Your task to perform on an android device: Do I have any events this weekend? Image 0: 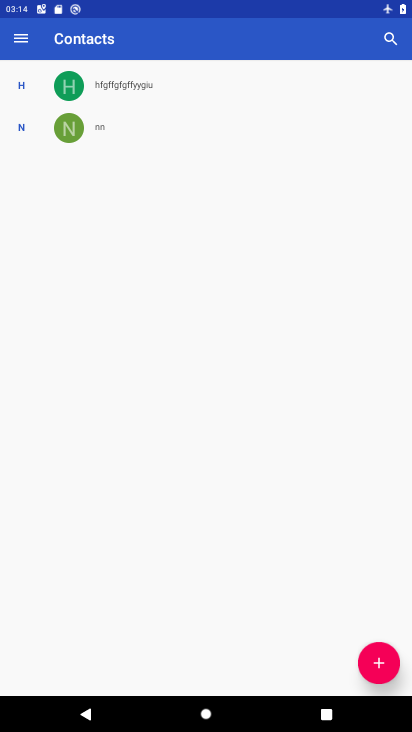
Step 0: press home button
Your task to perform on an android device: Do I have any events this weekend? Image 1: 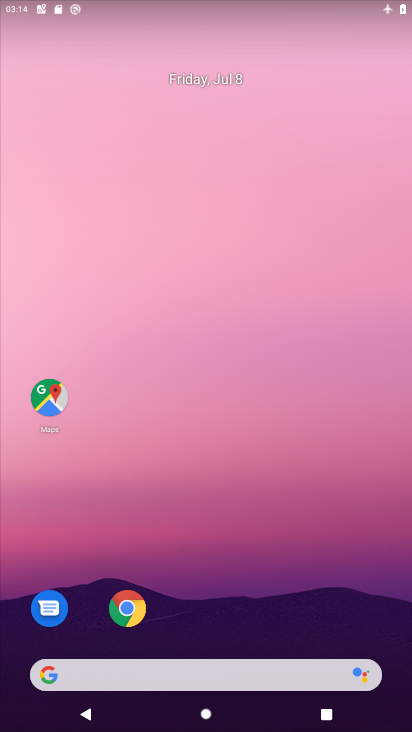
Step 1: drag from (242, 578) to (170, 118)
Your task to perform on an android device: Do I have any events this weekend? Image 2: 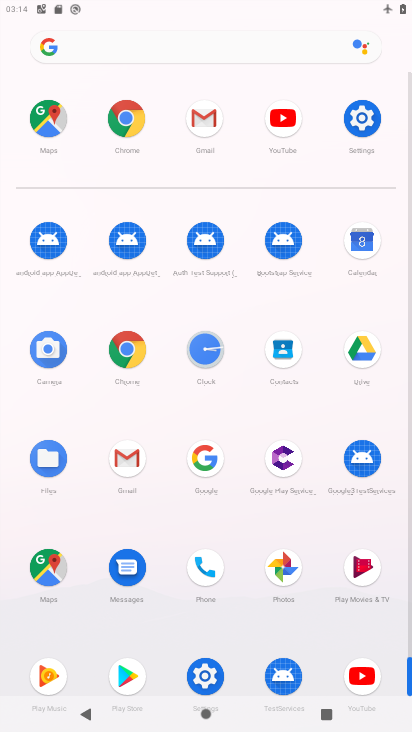
Step 2: click (356, 227)
Your task to perform on an android device: Do I have any events this weekend? Image 3: 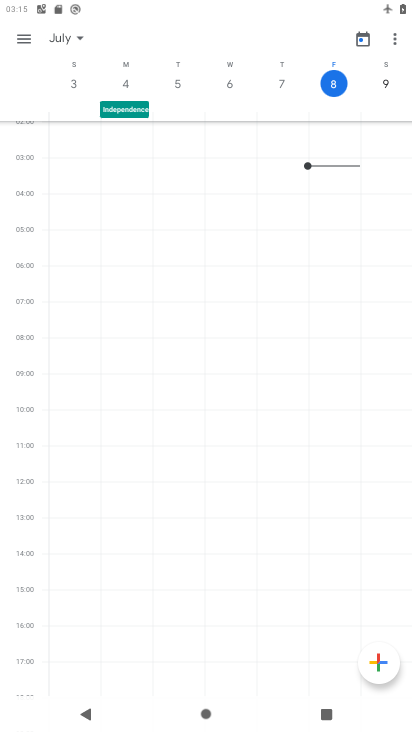
Step 3: task complete